Your task to perform on an android device: Show me popular games on the Play Store Image 0: 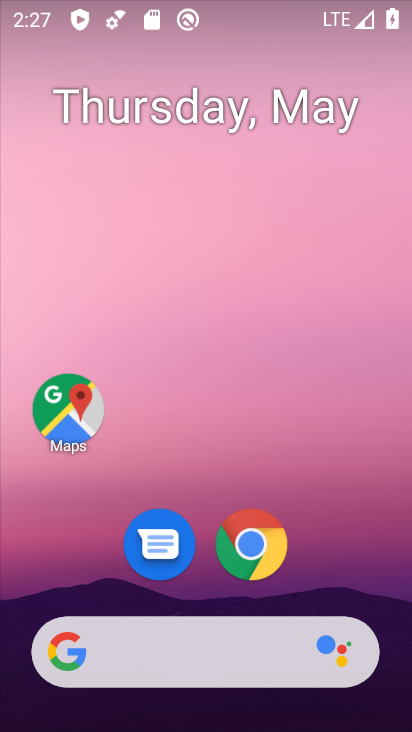
Step 0: drag from (198, 650) to (201, 146)
Your task to perform on an android device: Show me popular games on the Play Store Image 1: 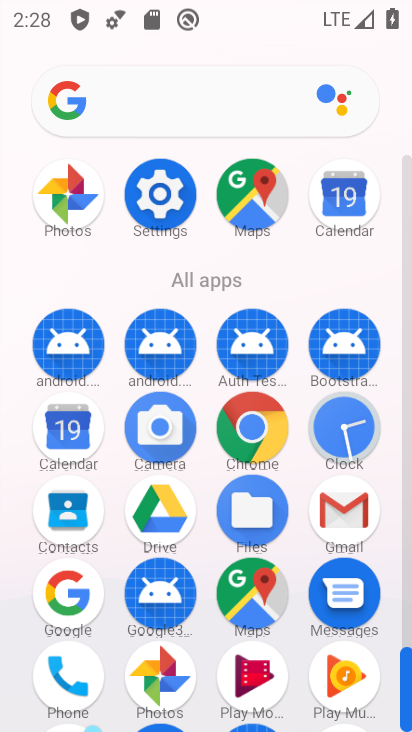
Step 1: drag from (276, 635) to (204, 249)
Your task to perform on an android device: Show me popular games on the Play Store Image 2: 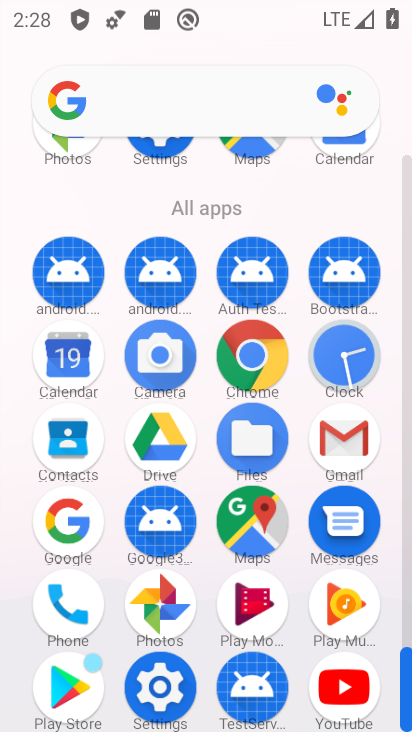
Step 2: click (71, 681)
Your task to perform on an android device: Show me popular games on the Play Store Image 3: 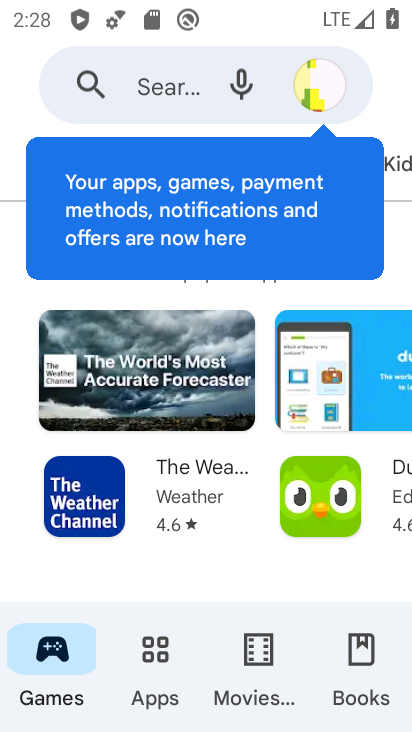
Step 3: task complete